Your task to perform on an android device: Open Google Maps and go to "Timeline" Image 0: 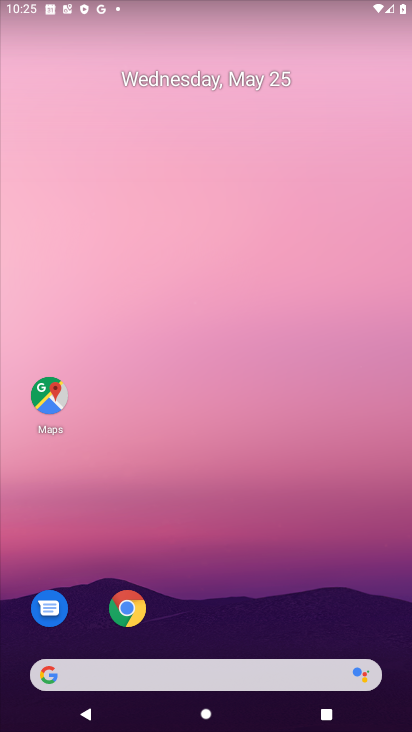
Step 0: click (50, 399)
Your task to perform on an android device: Open Google Maps and go to "Timeline" Image 1: 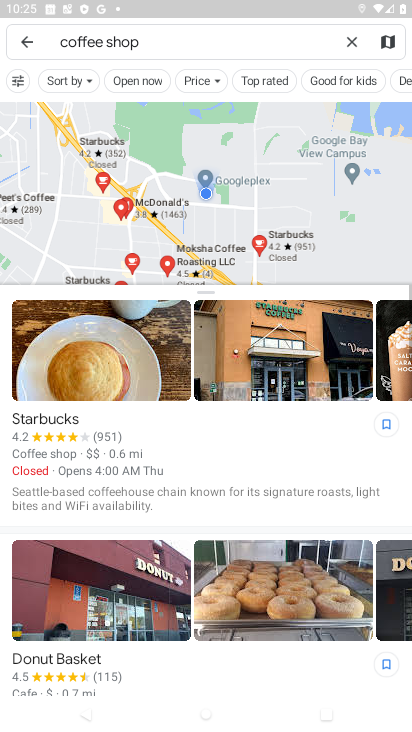
Step 1: click (352, 43)
Your task to perform on an android device: Open Google Maps and go to "Timeline" Image 2: 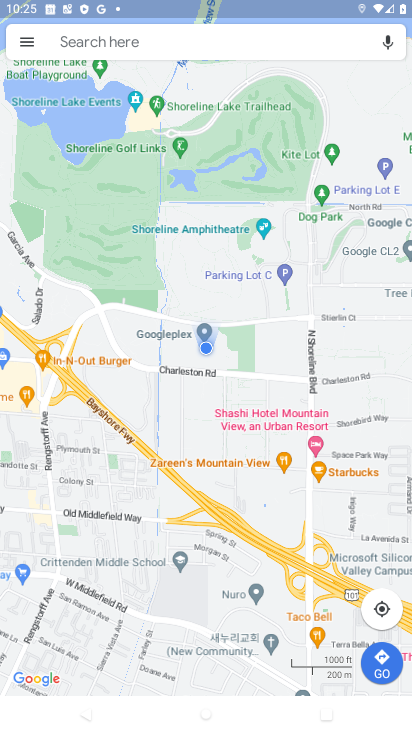
Step 2: click (25, 44)
Your task to perform on an android device: Open Google Maps and go to "Timeline" Image 3: 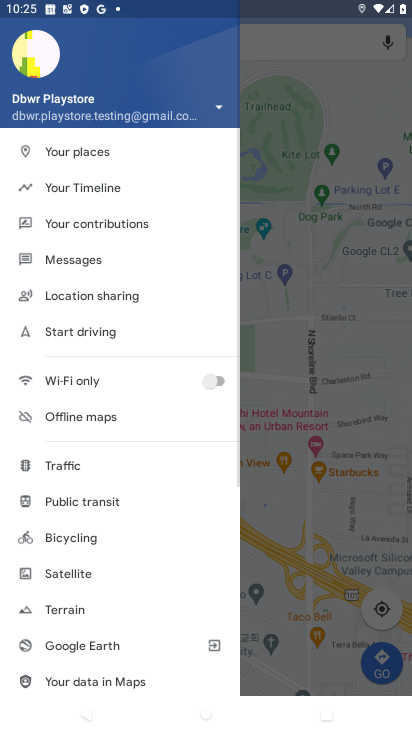
Step 3: click (72, 191)
Your task to perform on an android device: Open Google Maps and go to "Timeline" Image 4: 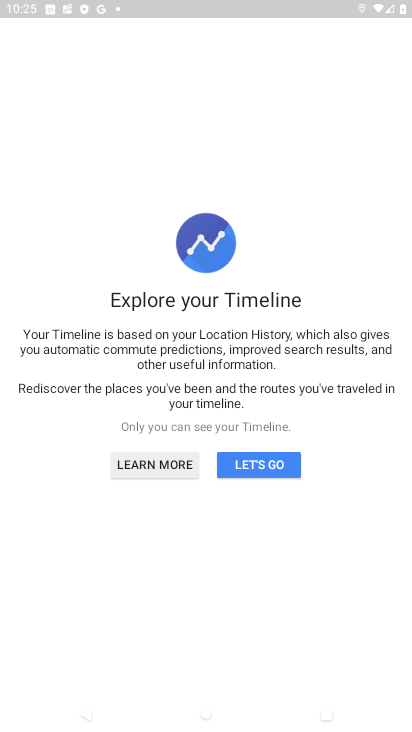
Step 4: click (269, 467)
Your task to perform on an android device: Open Google Maps and go to "Timeline" Image 5: 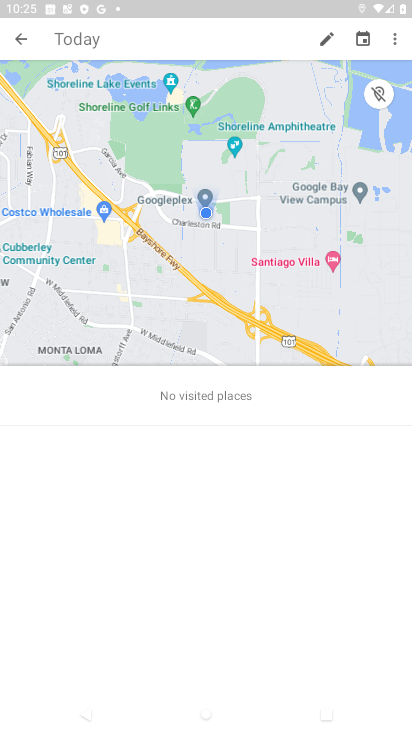
Step 5: task complete